Your task to perform on an android device: Open Google Maps Image 0: 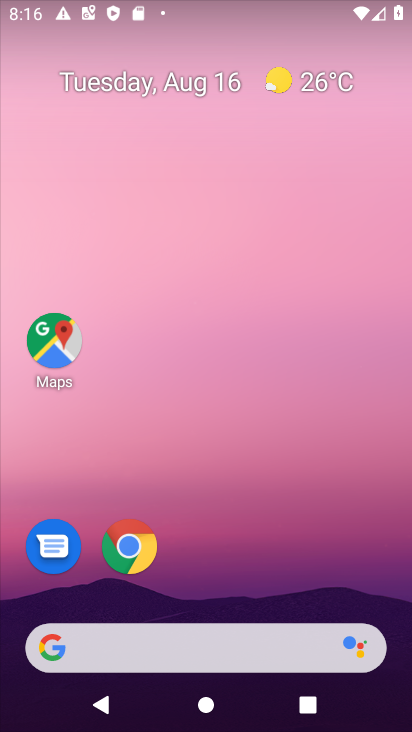
Step 0: click (55, 343)
Your task to perform on an android device: Open Google Maps Image 1: 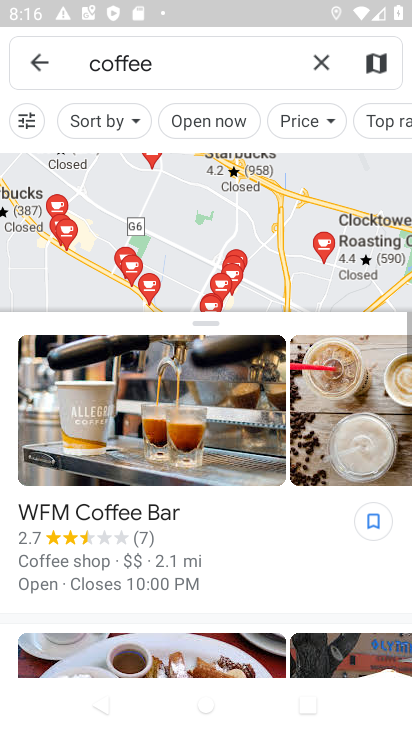
Step 1: click (320, 55)
Your task to perform on an android device: Open Google Maps Image 2: 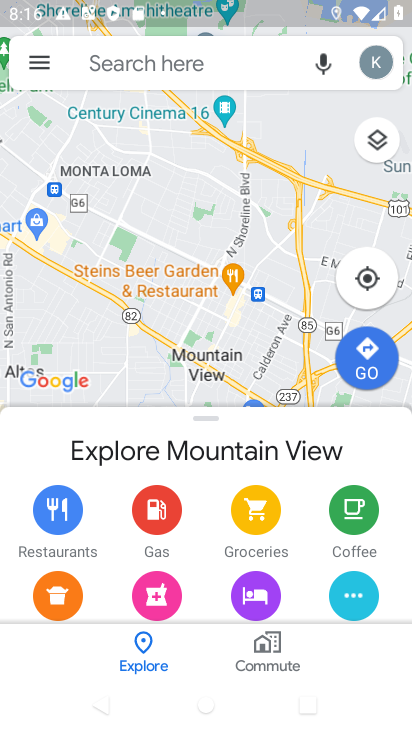
Step 2: task complete